Your task to perform on an android device: manage bookmarks in the chrome app Image 0: 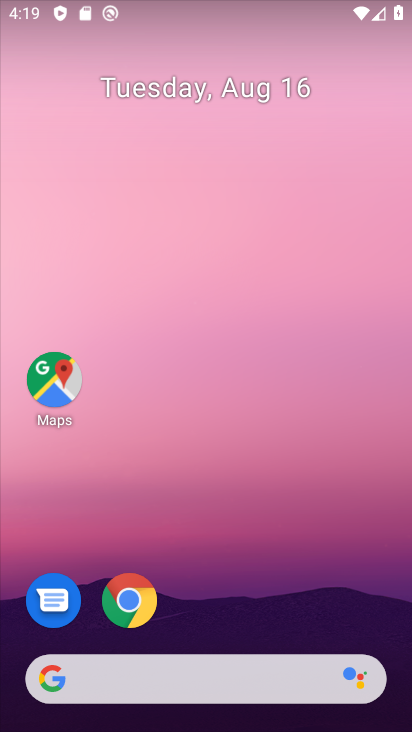
Step 0: click (313, 371)
Your task to perform on an android device: manage bookmarks in the chrome app Image 1: 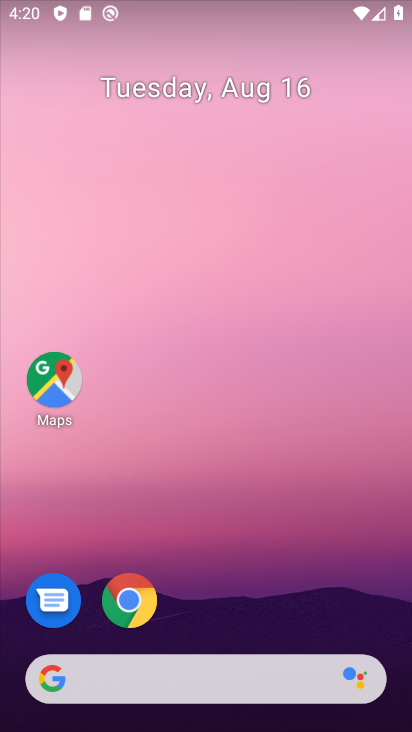
Step 1: click (123, 585)
Your task to perform on an android device: manage bookmarks in the chrome app Image 2: 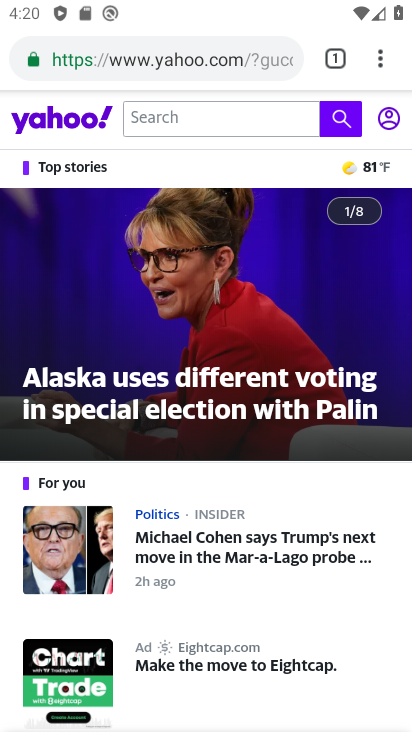
Step 2: click (374, 68)
Your task to perform on an android device: manage bookmarks in the chrome app Image 3: 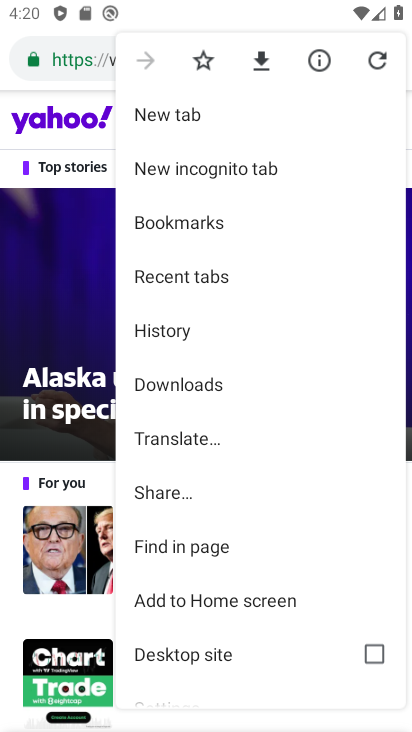
Step 3: click (196, 233)
Your task to perform on an android device: manage bookmarks in the chrome app Image 4: 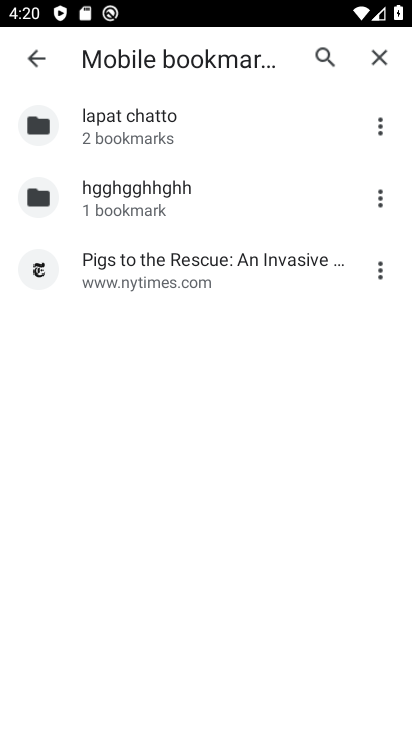
Step 4: click (379, 268)
Your task to perform on an android device: manage bookmarks in the chrome app Image 5: 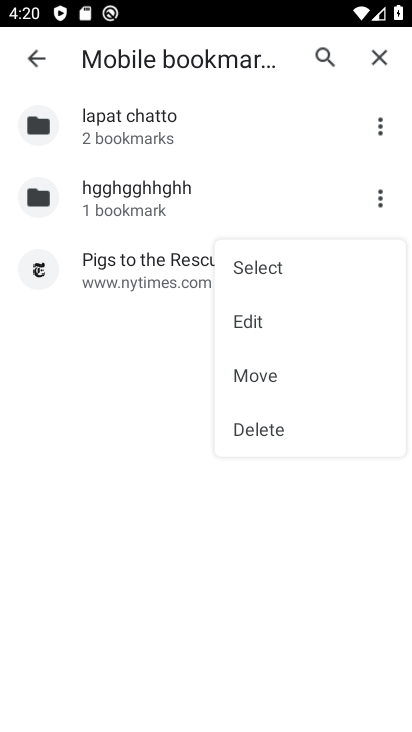
Step 5: click (262, 269)
Your task to perform on an android device: manage bookmarks in the chrome app Image 6: 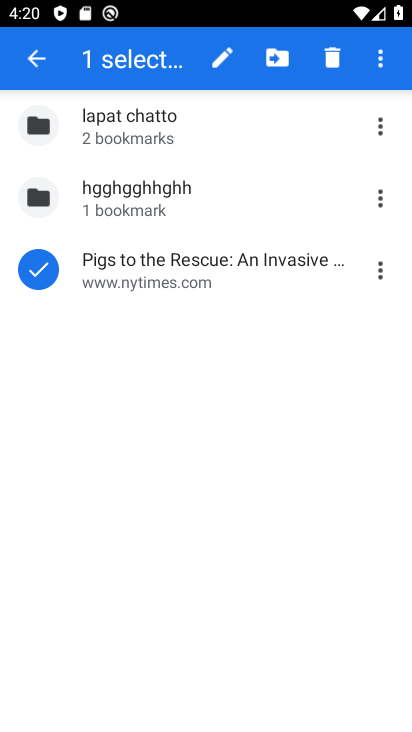
Step 6: click (278, 54)
Your task to perform on an android device: manage bookmarks in the chrome app Image 7: 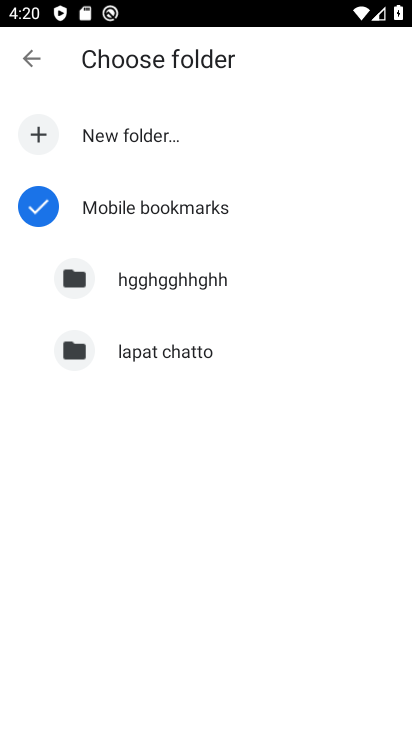
Step 7: click (162, 343)
Your task to perform on an android device: manage bookmarks in the chrome app Image 8: 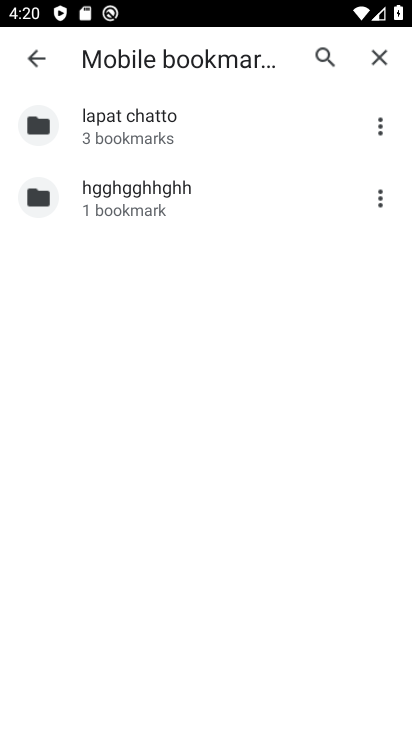
Step 8: task complete